Your task to perform on an android device: toggle translation in the chrome app Image 0: 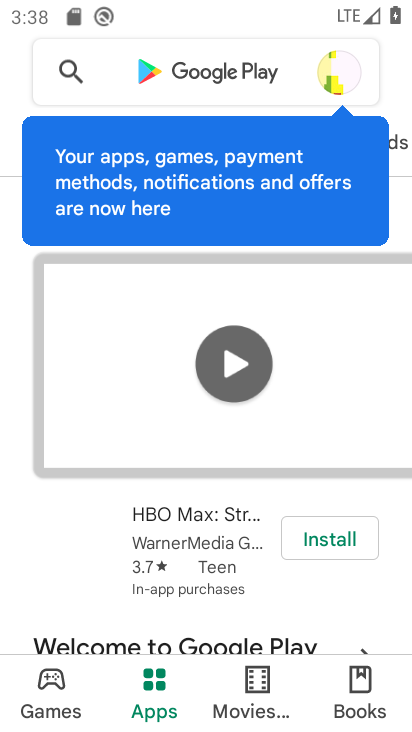
Step 0: press home button
Your task to perform on an android device: toggle translation in the chrome app Image 1: 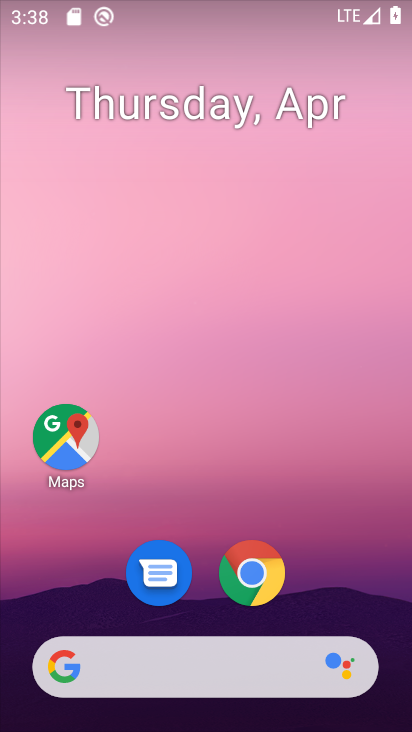
Step 1: drag from (355, 603) to (258, 94)
Your task to perform on an android device: toggle translation in the chrome app Image 2: 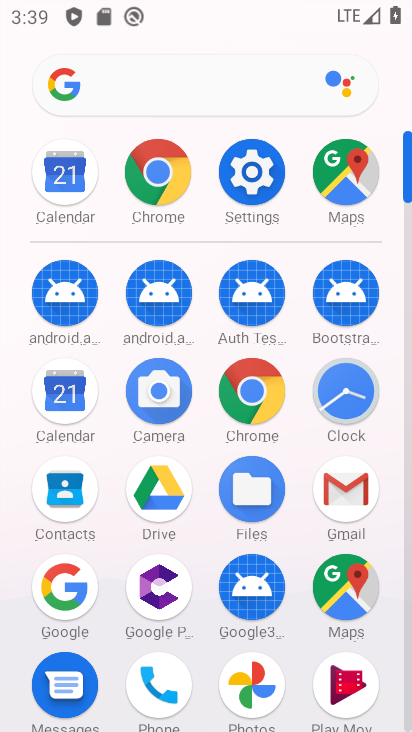
Step 2: click (250, 396)
Your task to perform on an android device: toggle translation in the chrome app Image 3: 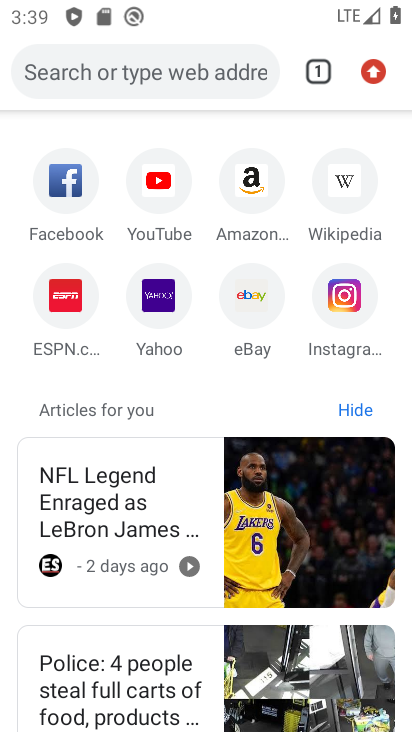
Step 3: click (372, 73)
Your task to perform on an android device: toggle translation in the chrome app Image 4: 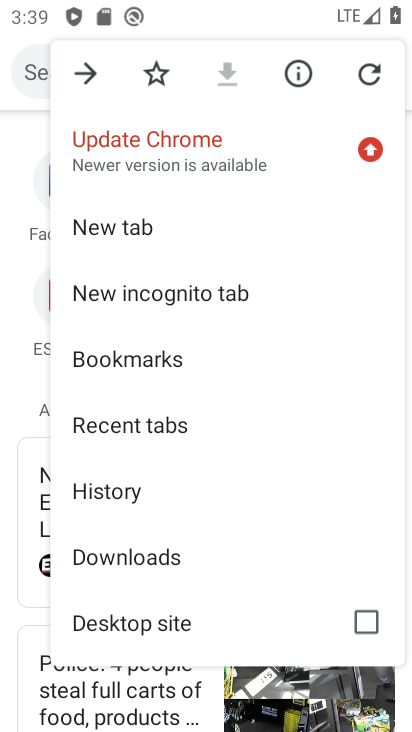
Step 4: drag from (182, 585) to (211, 313)
Your task to perform on an android device: toggle translation in the chrome app Image 5: 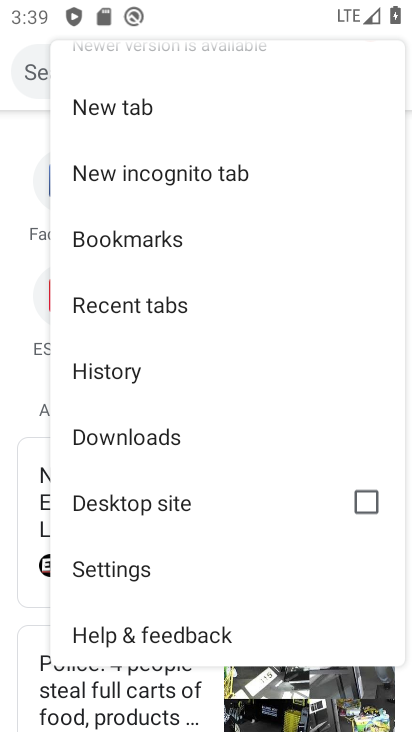
Step 5: click (126, 588)
Your task to perform on an android device: toggle translation in the chrome app Image 6: 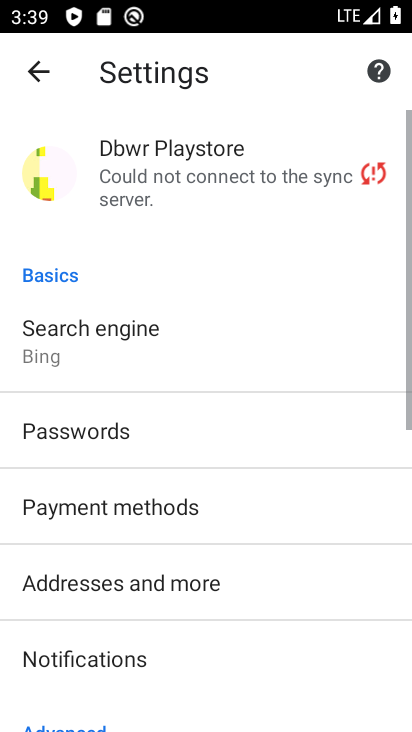
Step 6: drag from (123, 644) to (185, 216)
Your task to perform on an android device: toggle translation in the chrome app Image 7: 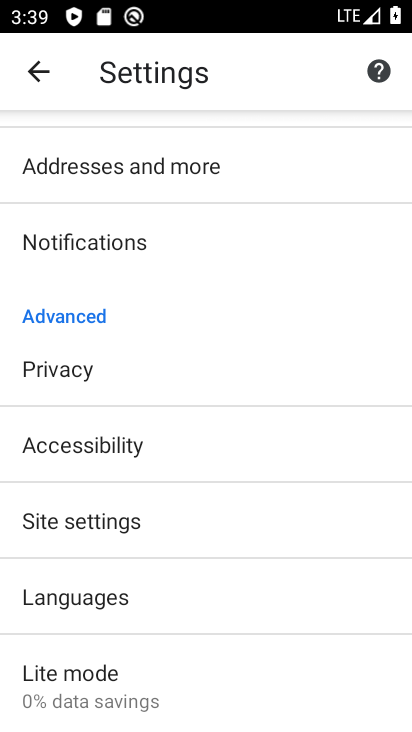
Step 7: click (153, 603)
Your task to perform on an android device: toggle translation in the chrome app Image 8: 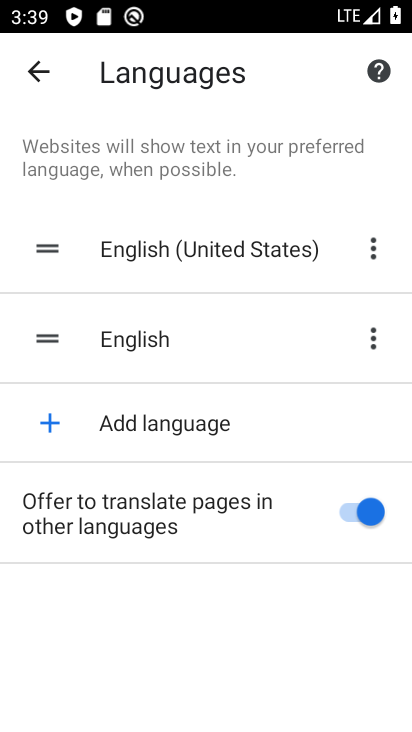
Step 8: click (293, 523)
Your task to perform on an android device: toggle translation in the chrome app Image 9: 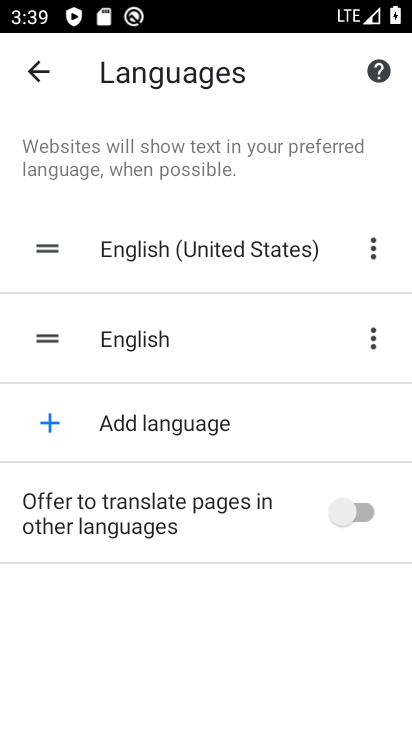
Step 9: task complete